Your task to perform on an android device: Search for Italian restaurants on Maps Image 0: 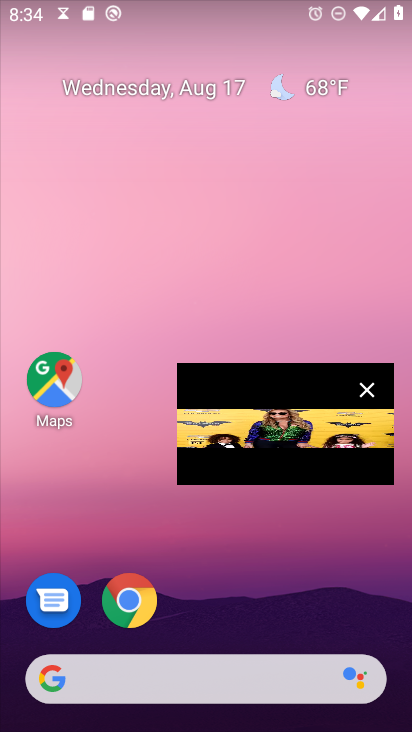
Step 0: press home button
Your task to perform on an android device: Search for Italian restaurants on Maps Image 1: 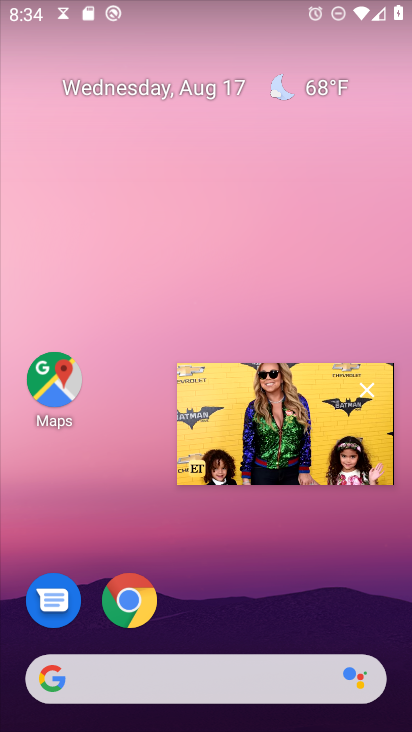
Step 1: click (363, 392)
Your task to perform on an android device: Search for Italian restaurants on Maps Image 2: 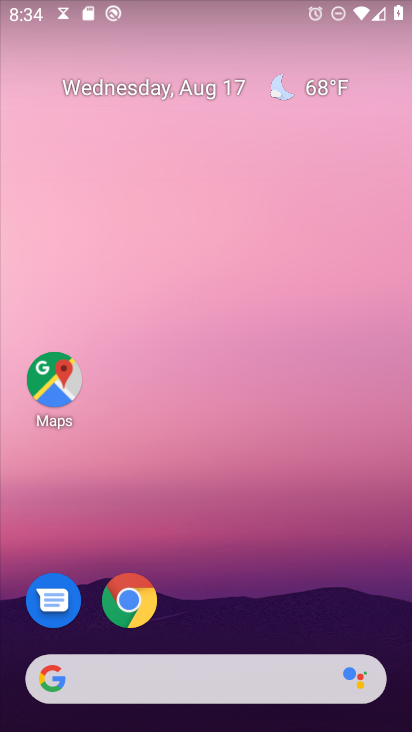
Step 2: click (45, 370)
Your task to perform on an android device: Search for Italian restaurants on Maps Image 3: 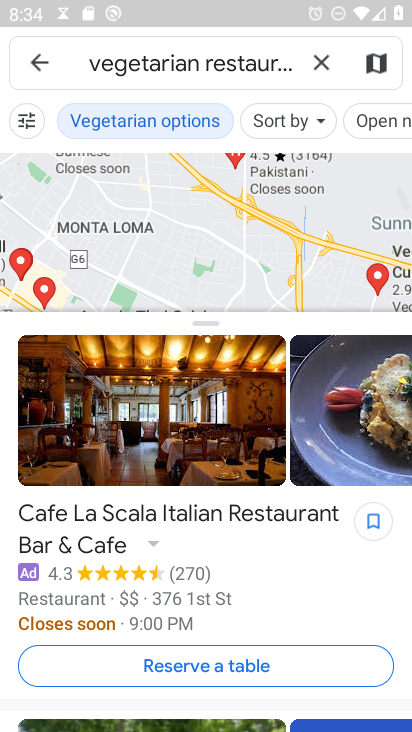
Step 3: click (318, 63)
Your task to perform on an android device: Search for Italian restaurants on Maps Image 4: 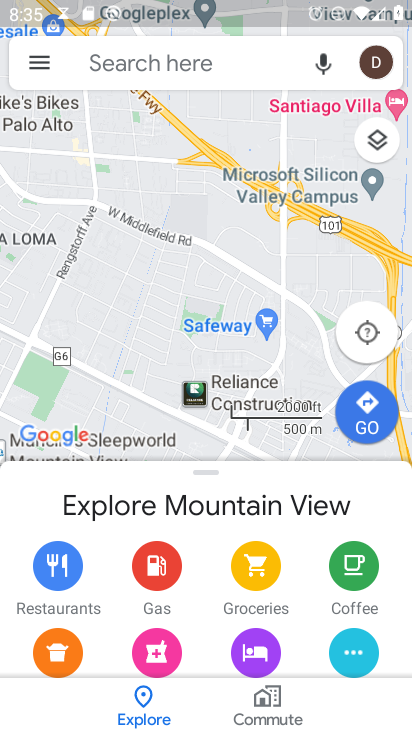
Step 4: type "Italian restaurants"
Your task to perform on an android device: Search for Italian restaurants on Maps Image 5: 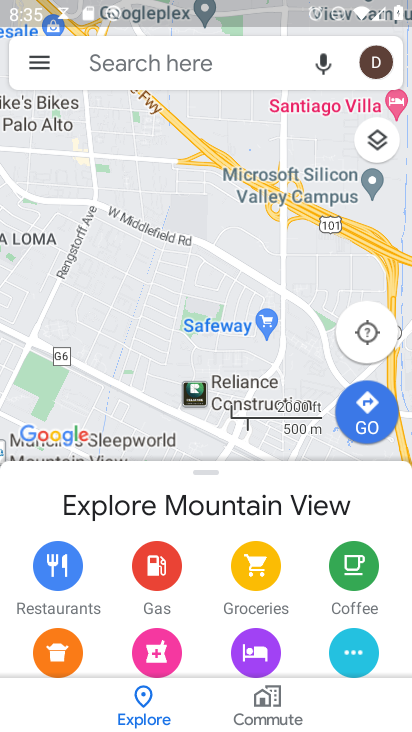
Step 5: click (205, 65)
Your task to perform on an android device: Search for Italian restaurants on Maps Image 6: 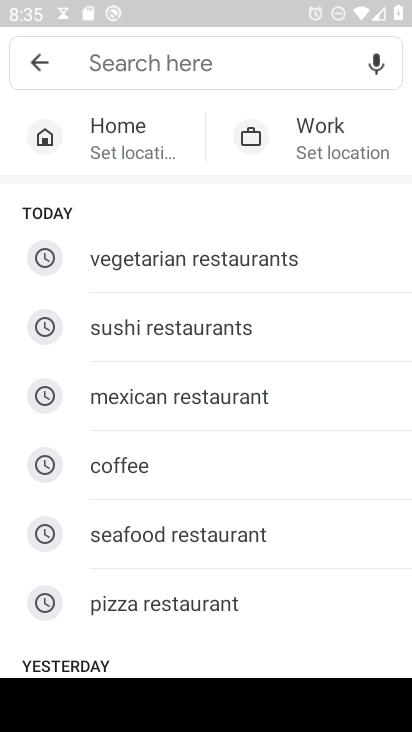
Step 6: type "Italian restaurants"
Your task to perform on an android device: Search for Italian restaurants on Maps Image 7: 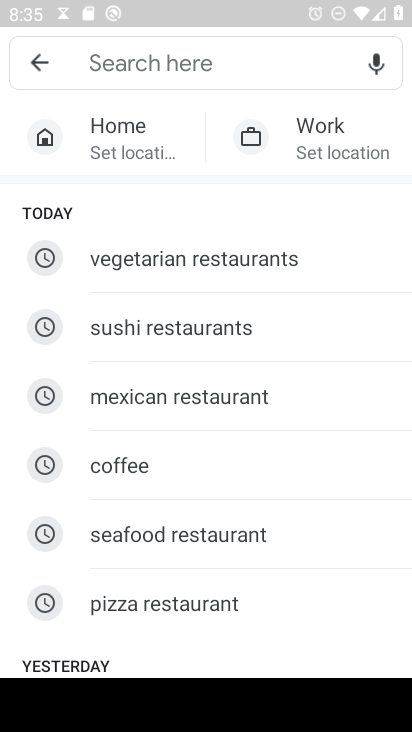
Step 7: click (135, 71)
Your task to perform on an android device: Search for Italian restaurants on Maps Image 8: 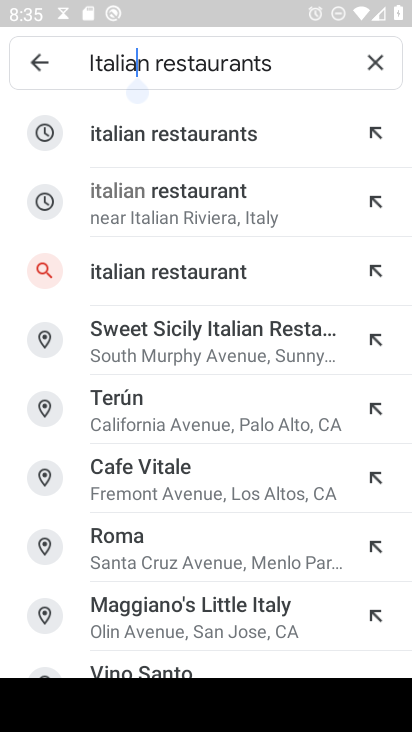
Step 8: click (138, 134)
Your task to perform on an android device: Search for Italian restaurants on Maps Image 9: 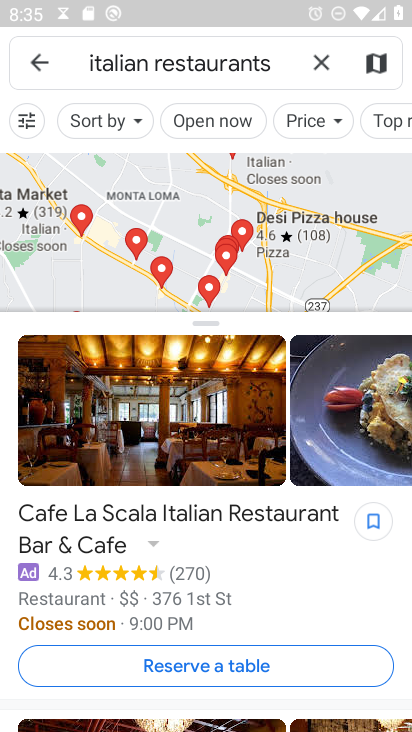
Step 9: task complete